Your task to perform on an android device: change the clock style Image 0: 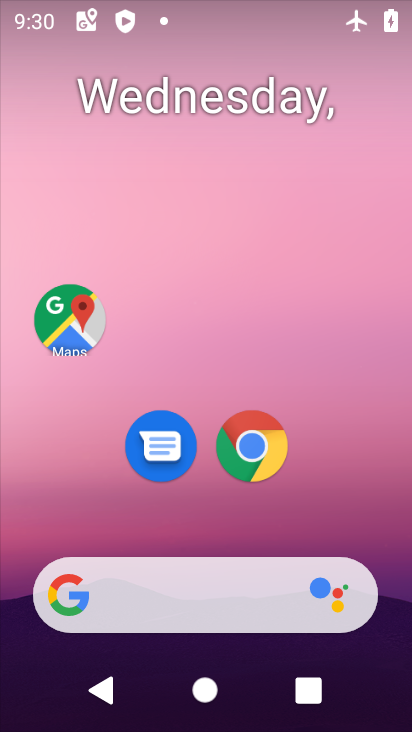
Step 0: press home button
Your task to perform on an android device: change the clock style Image 1: 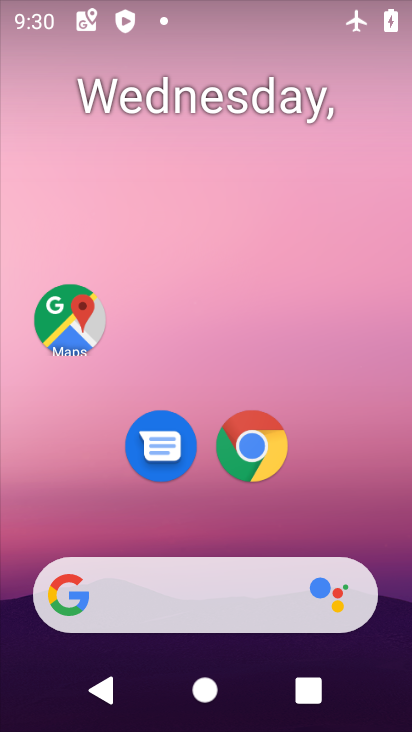
Step 1: drag from (192, 615) to (323, 75)
Your task to perform on an android device: change the clock style Image 2: 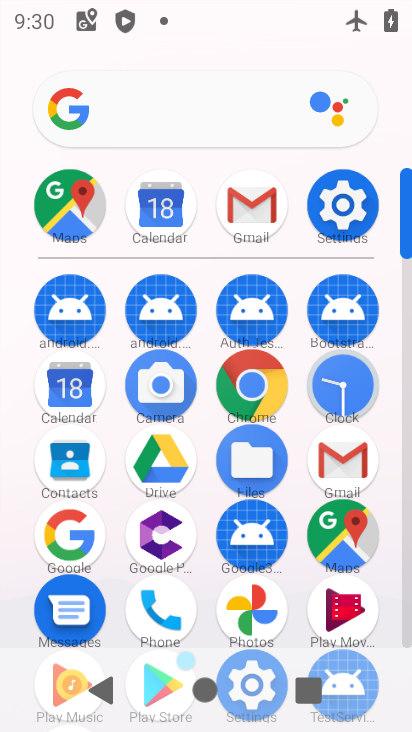
Step 2: click (345, 400)
Your task to perform on an android device: change the clock style Image 3: 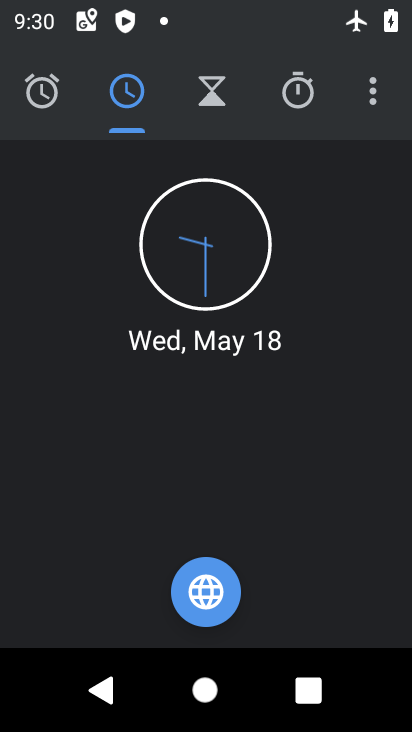
Step 3: click (375, 94)
Your task to perform on an android device: change the clock style Image 4: 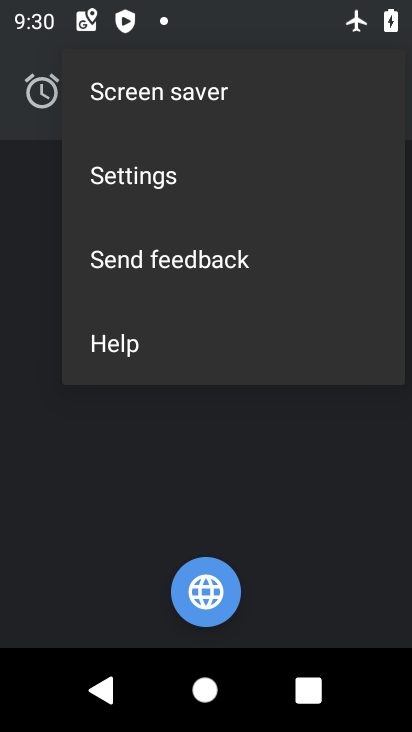
Step 4: click (182, 178)
Your task to perform on an android device: change the clock style Image 5: 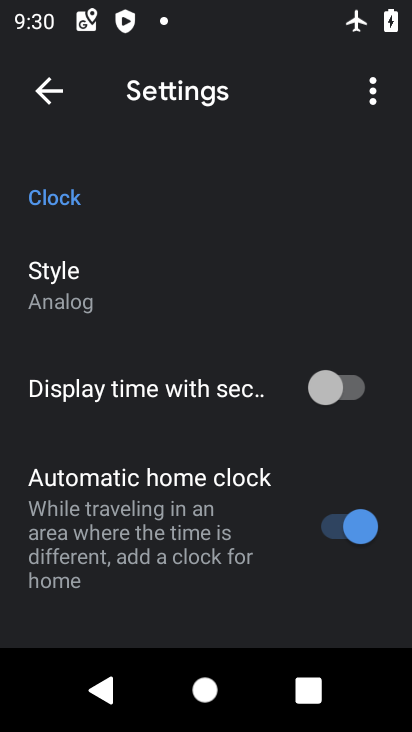
Step 5: click (61, 289)
Your task to perform on an android device: change the clock style Image 6: 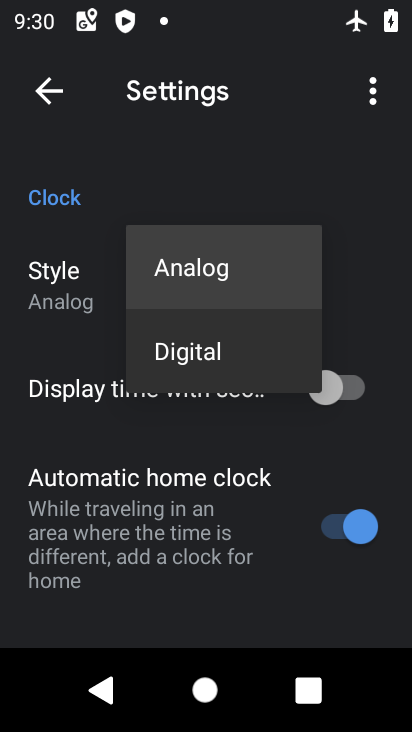
Step 6: click (210, 356)
Your task to perform on an android device: change the clock style Image 7: 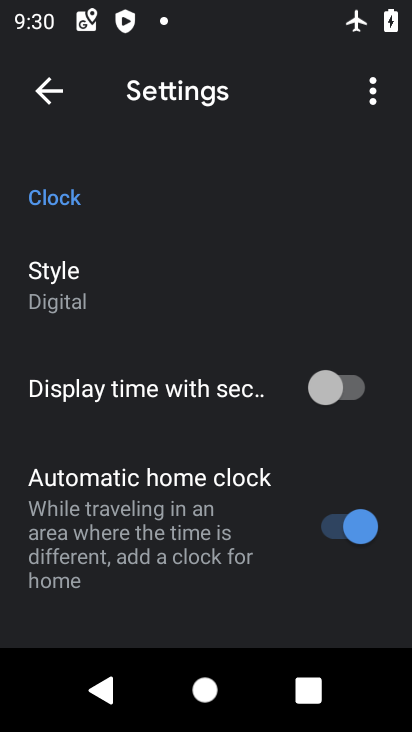
Step 7: task complete